Your task to perform on an android device: Open Google Chrome Image 0: 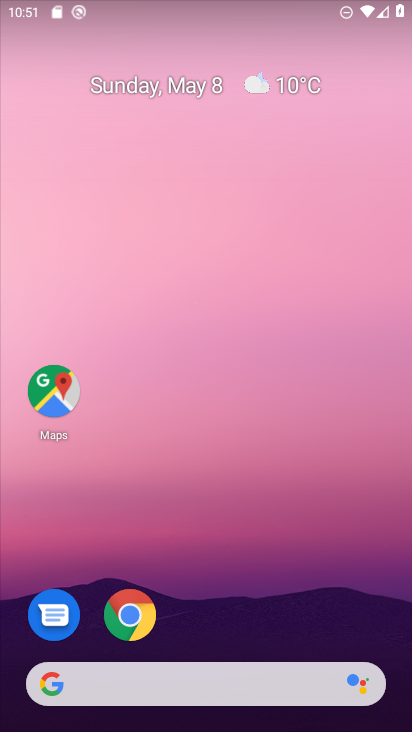
Step 0: drag from (317, 629) to (326, 164)
Your task to perform on an android device: Open Google Chrome Image 1: 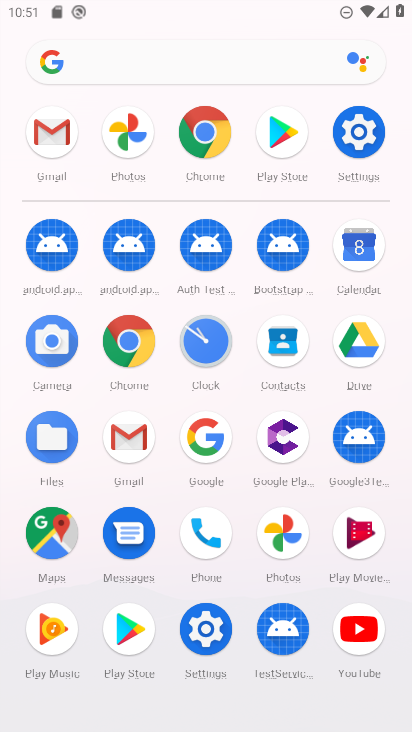
Step 1: click (135, 337)
Your task to perform on an android device: Open Google Chrome Image 2: 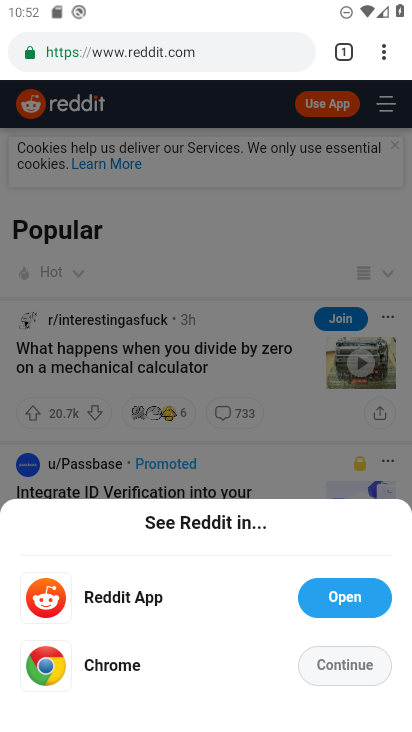
Step 2: task complete